Your task to perform on an android device: What's the US dollar exchange rate against the Canadian Dollar? Image 0: 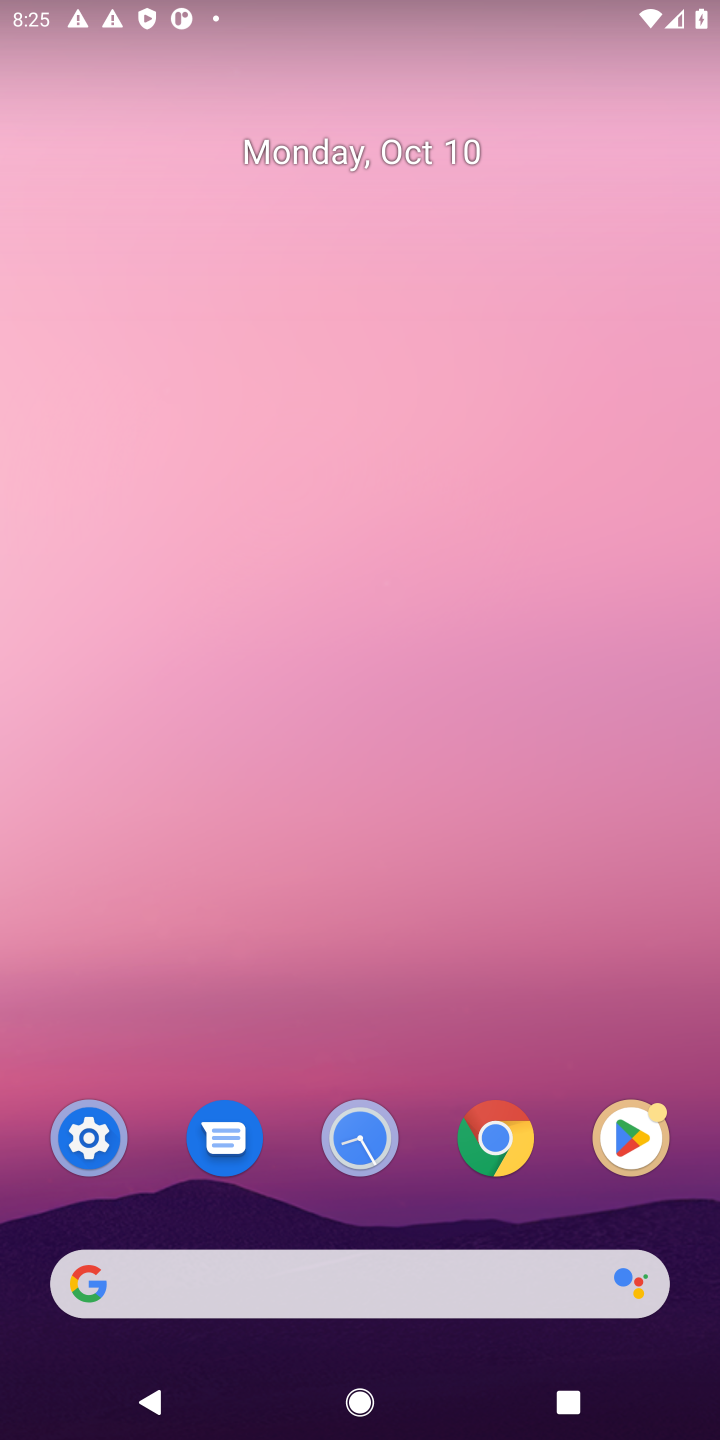
Step 0: click (497, 1135)
Your task to perform on an android device: What's the US dollar exchange rate against the Canadian Dollar? Image 1: 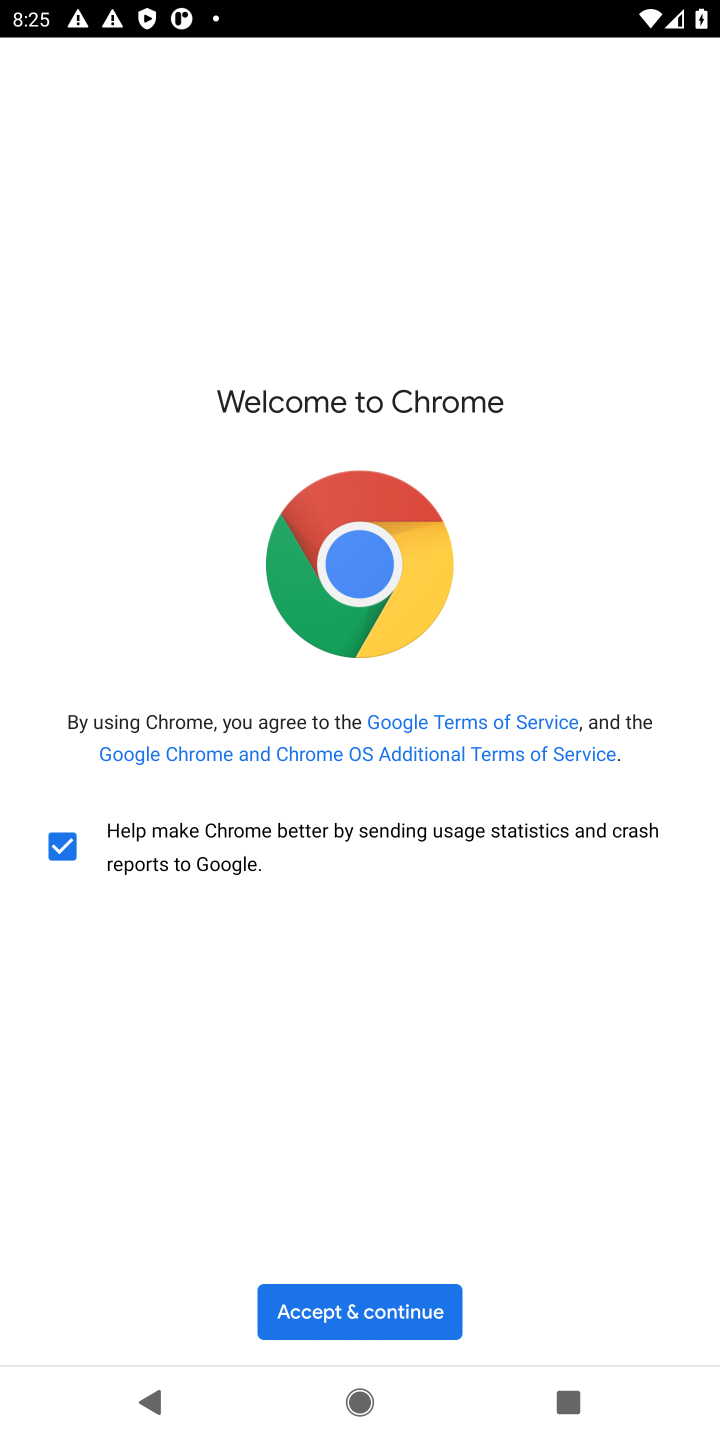
Step 1: click (342, 1307)
Your task to perform on an android device: What's the US dollar exchange rate against the Canadian Dollar? Image 2: 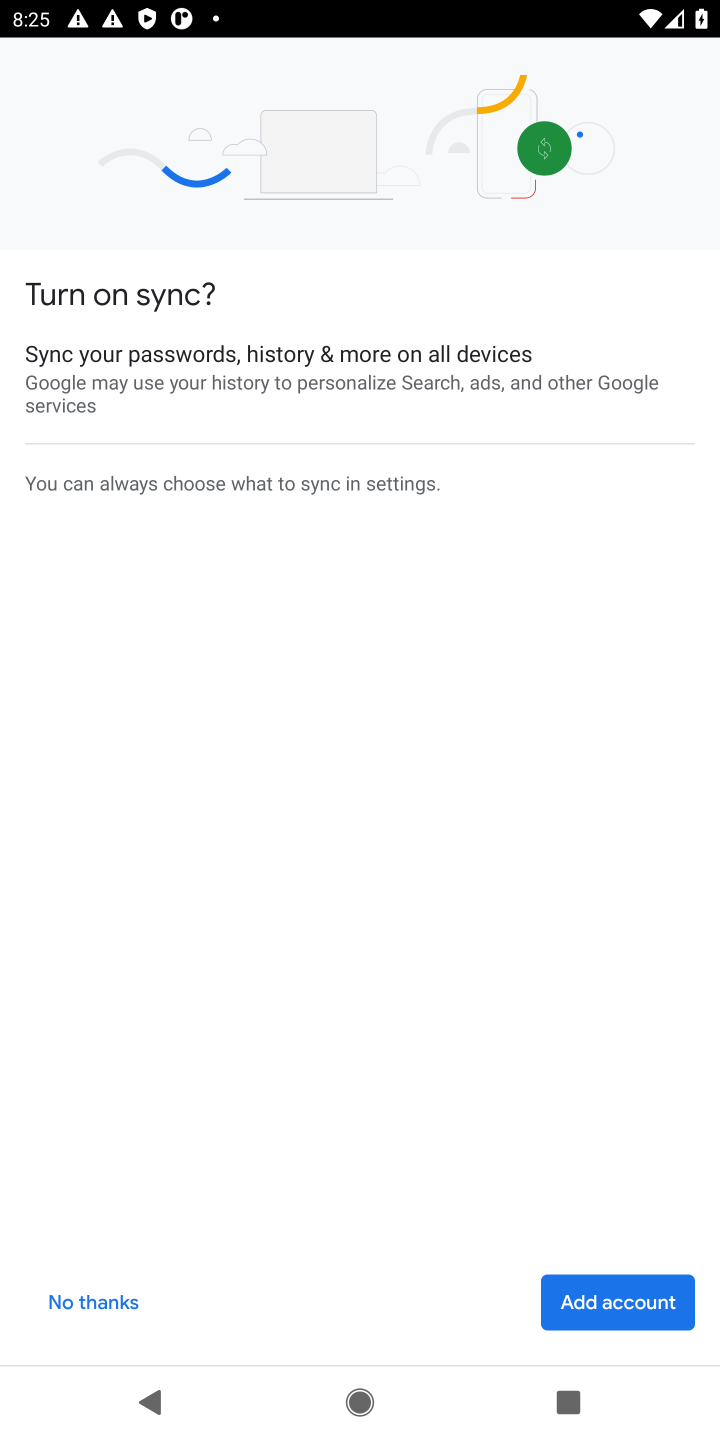
Step 2: click (628, 1305)
Your task to perform on an android device: What's the US dollar exchange rate against the Canadian Dollar? Image 3: 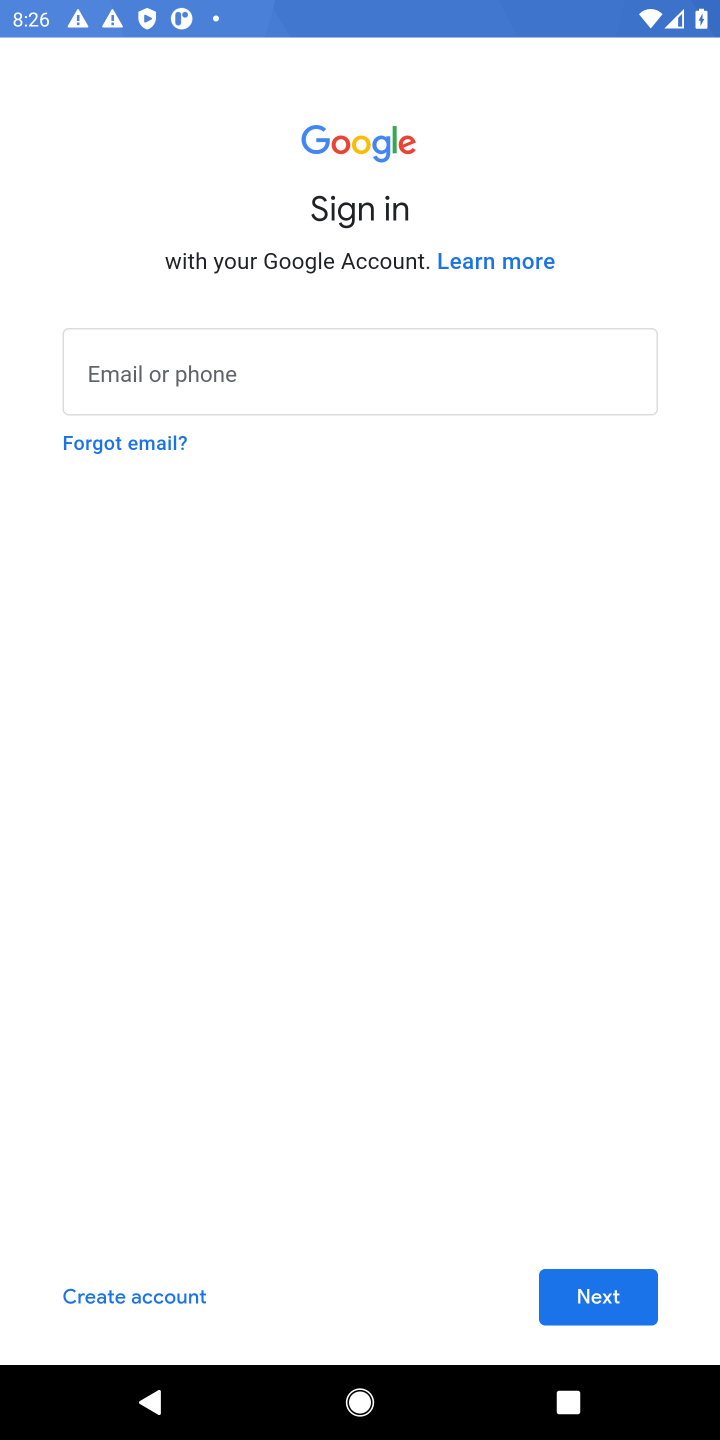
Step 3: task complete